Your task to perform on an android device: toggle sleep mode Image 0: 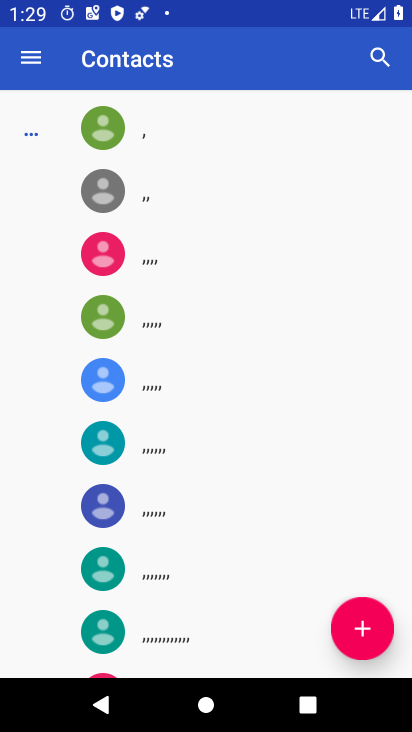
Step 0: press home button
Your task to perform on an android device: toggle sleep mode Image 1: 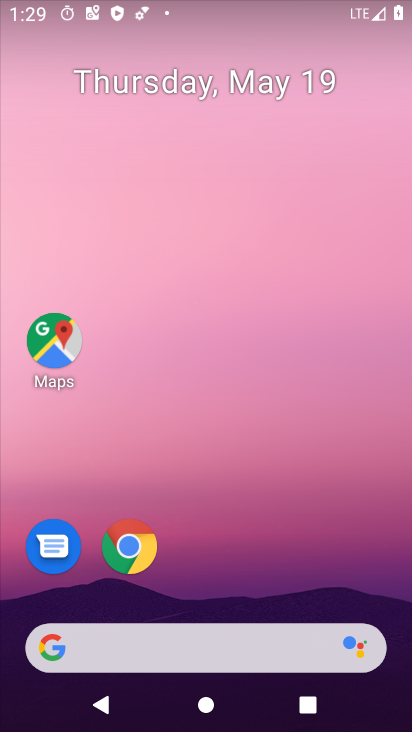
Step 1: drag from (213, 614) to (224, 40)
Your task to perform on an android device: toggle sleep mode Image 2: 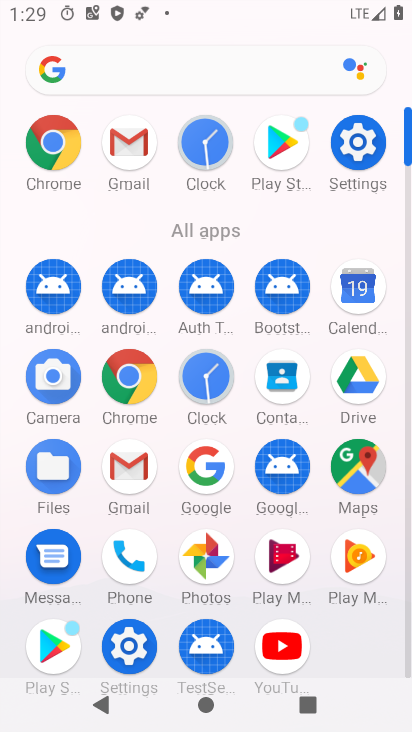
Step 2: click (357, 168)
Your task to perform on an android device: toggle sleep mode Image 3: 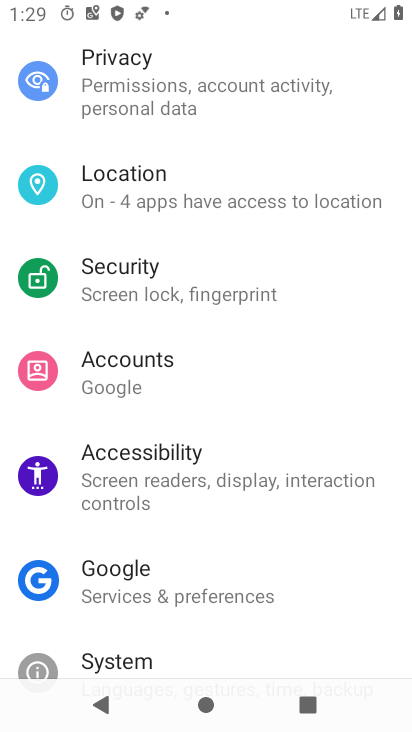
Step 3: task complete